Your task to perform on an android device: change notification settings in the gmail app Image 0: 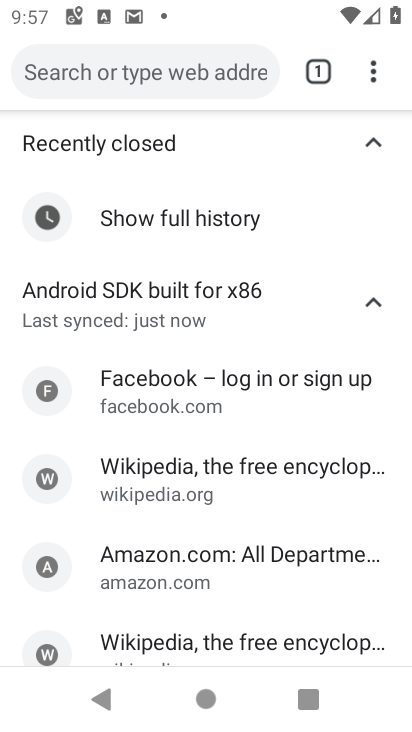
Step 0: press home button
Your task to perform on an android device: change notification settings in the gmail app Image 1: 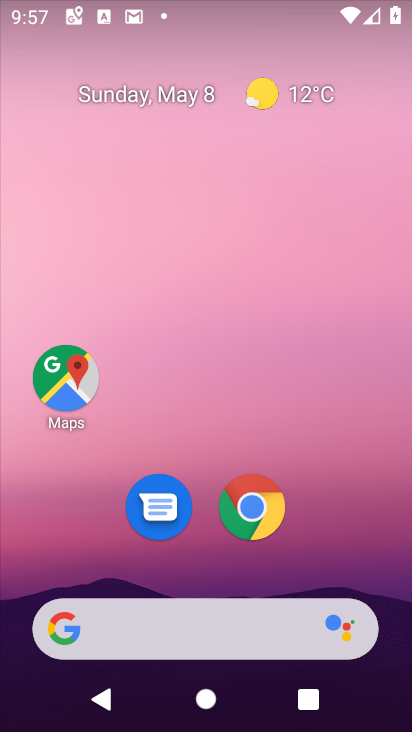
Step 1: drag from (244, 687) to (309, 83)
Your task to perform on an android device: change notification settings in the gmail app Image 2: 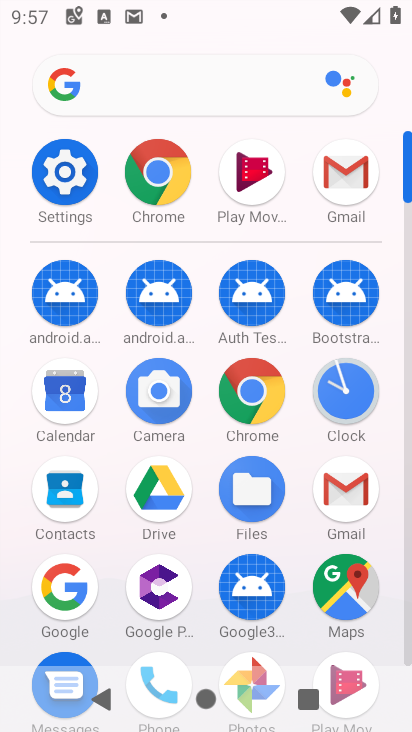
Step 2: click (340, 185)
Your task to perform on an android device: change notification settings in the gmail app Image 3: 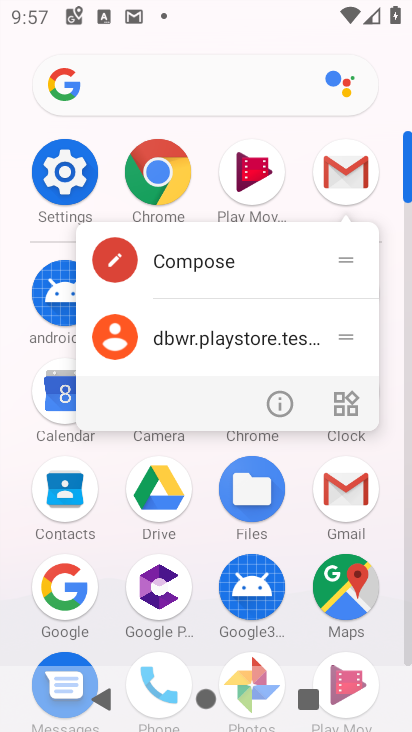
Step 3: click (277, 398)
Your task to perform on an android device: change notification settings in the gmail app Image 4: 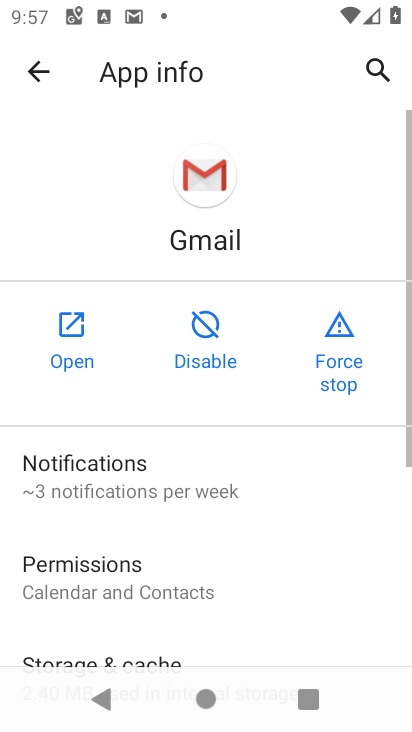
Step 4: click (160, 475)
Your task to perform on an android device: change notification settings in the gmail app Image 5: 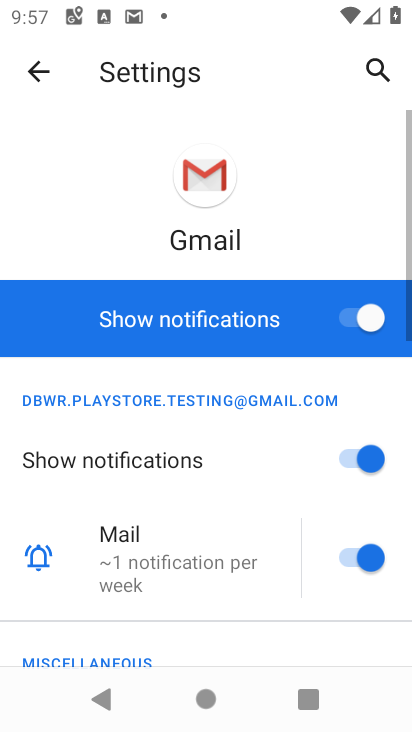
Step 5: click (360, 329)
Your task to perform on an android device: change notification settings in the gmail app Image 6: 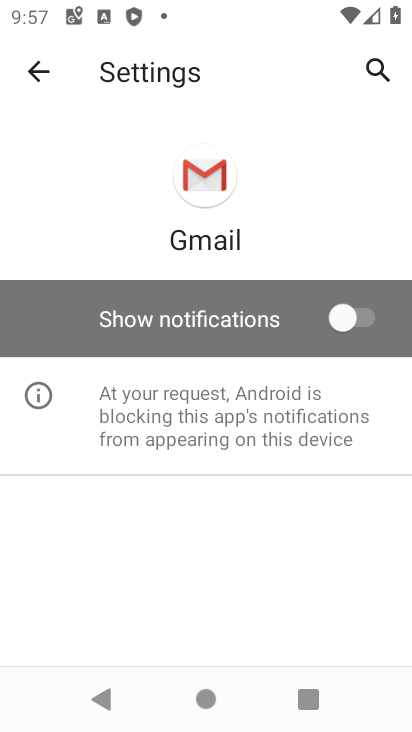
Step 6: task complete